Your task to perform on an android device: View the shopping cart on bestbuy.com. Image 0: 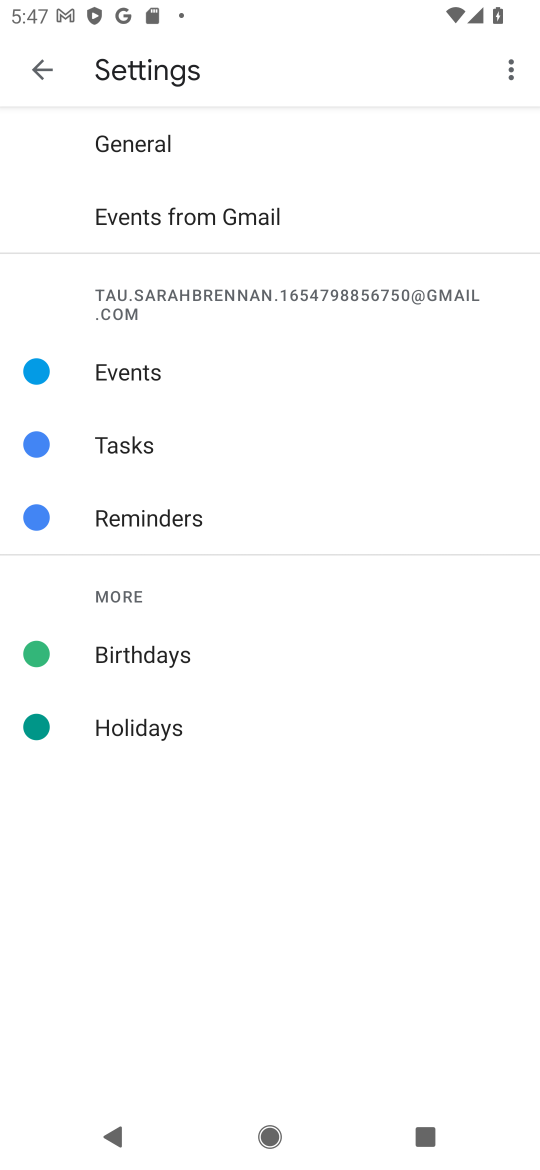
Step 0: press home button
Your task to perform on an android device: View the shopping cart on bestbuy.com. Image 1: 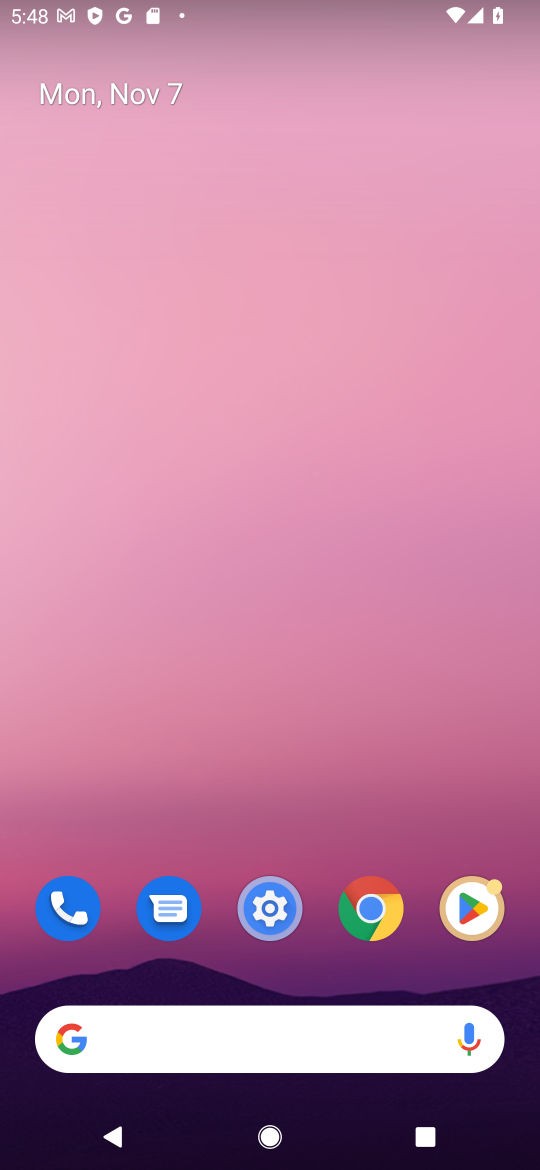
Step 1: click (231, 1025)
Your task to perform on an android device: View the shopping cart on bestbuy.com. Image 2: 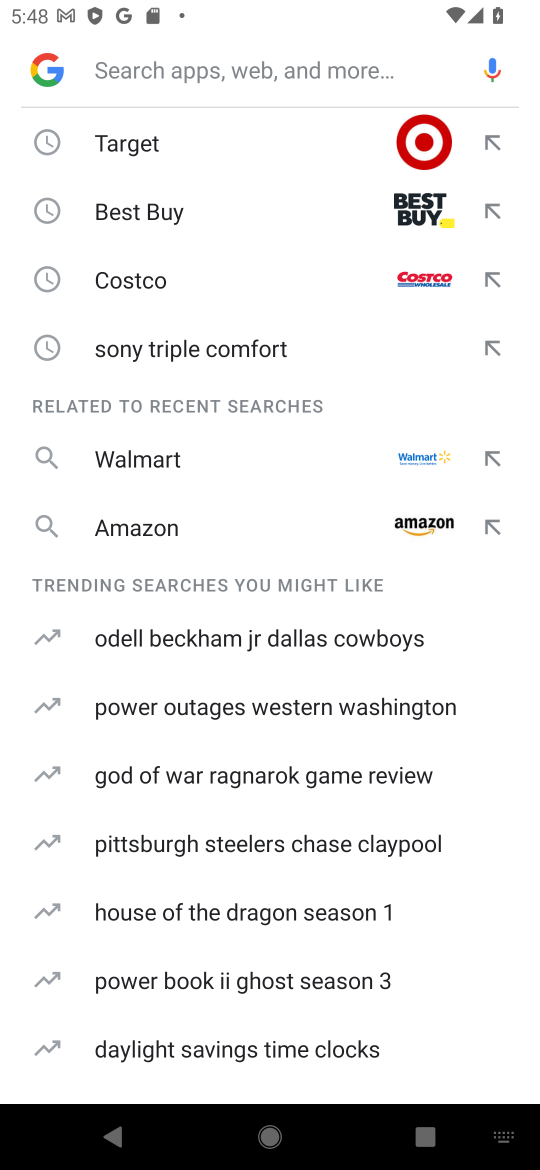
Step 2: click (241, 213)
Your task to perform on an android device: View the shopping cart on bestbuy.com. Image 3: 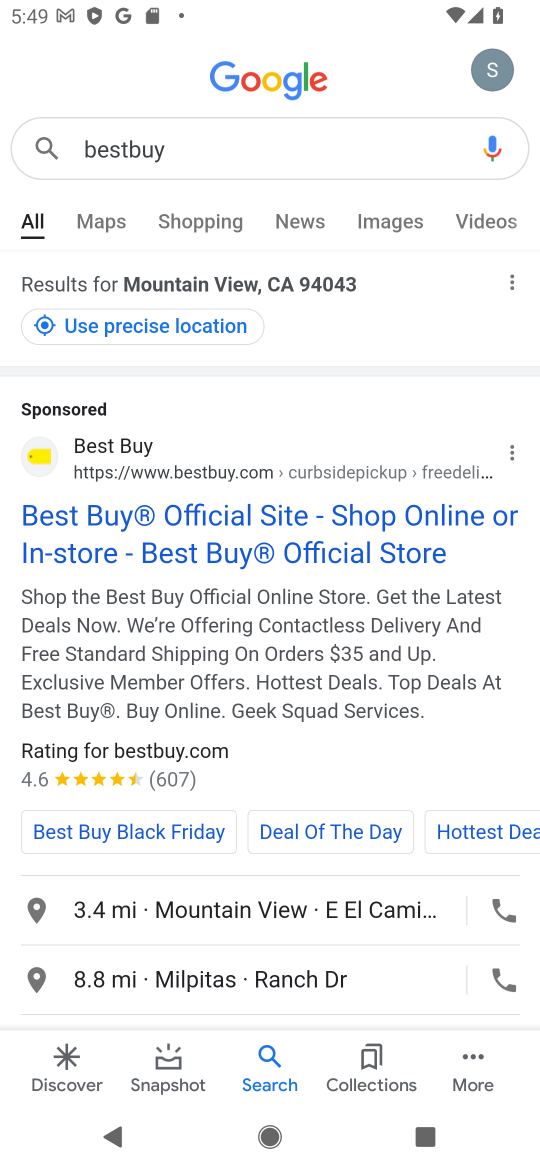
Step 3: click (240, 556)
Your task to perform on an android device: View the shopping cart on bestbuy.com. Image 4: 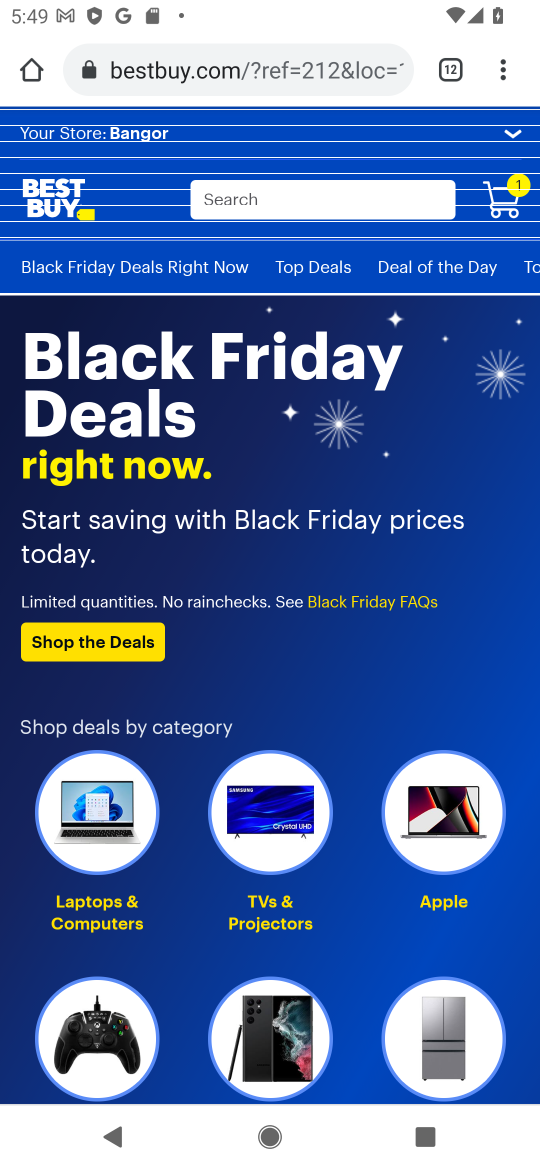
Step 4: task complete